Your task to perform on an android device: Go to Amazon Image 0: 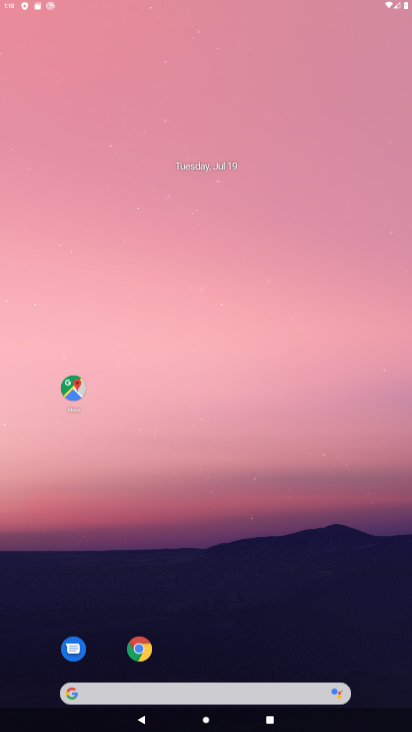
Step 0: click (165, 48)
Your task to perform on an android device: Go to Amazon Image 1: 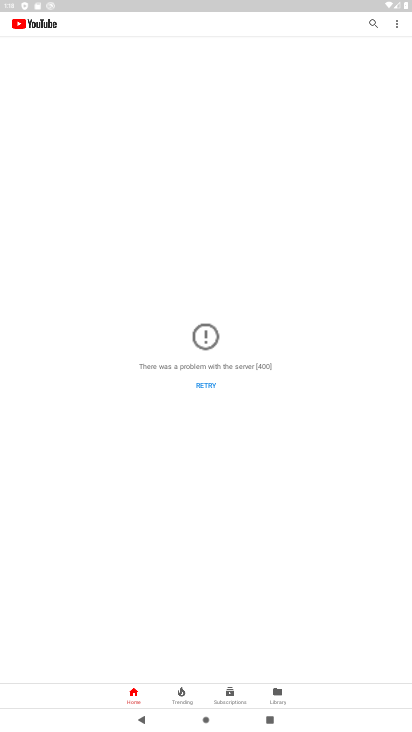
Step 1: press home button
Your task to perform on an android device: Go to Amazon Image 2: 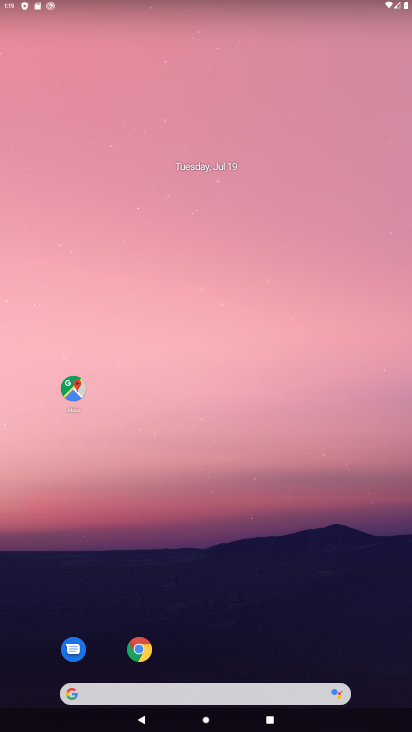
Step 2: click (137, 644)
Your task to perform on an android device: Go to Amazon Image 3: 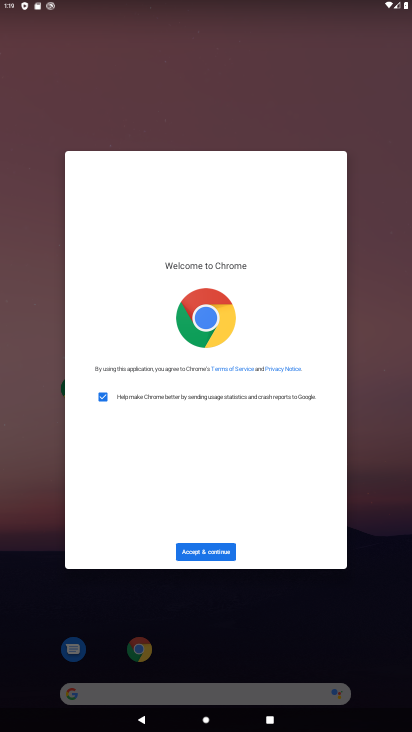
Step 3: click (211, 553)
Your task to perform on an android device: Go to Amazon Image 4: 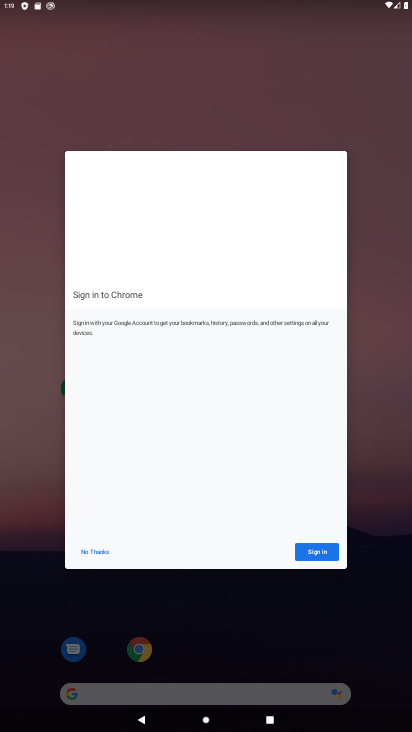
Step 4: click (318, 558)
Your task to perform on an android device: Go to Amazon Image 5: 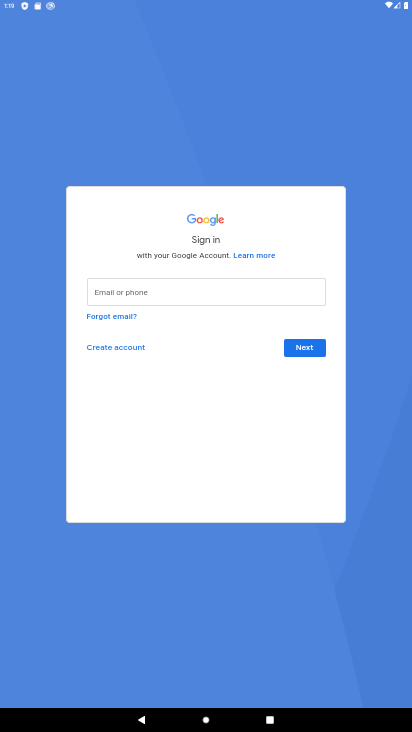
Step 5: task complete